Your task to perform on an android device: Open privacy settings Image 0: 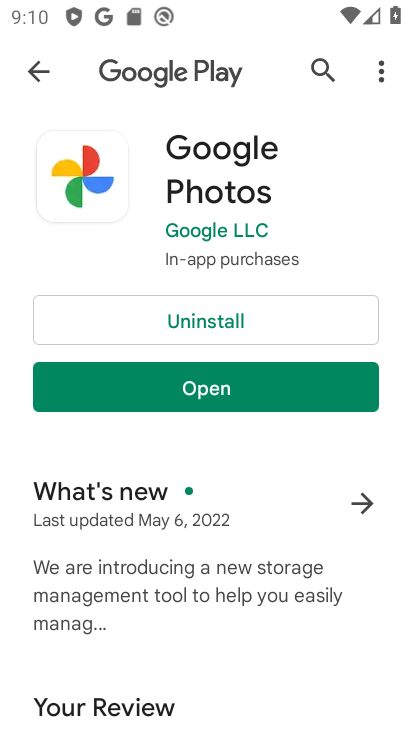
Step 0: press home button
Your task to perform on an android device: Open privacy settings Image 1: 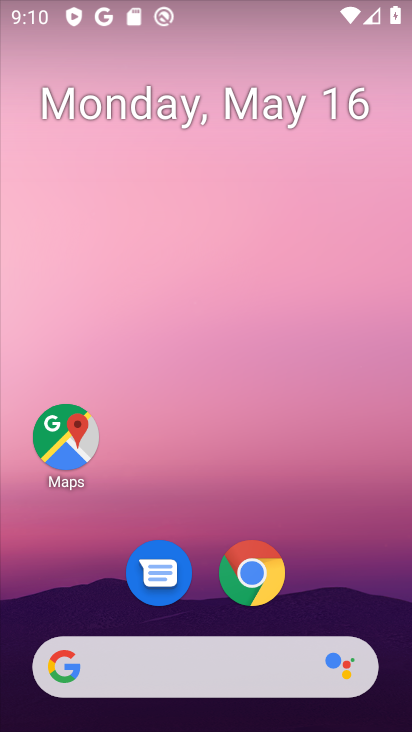
Step 1: drag from (310, 577) to (325, 177)
Your task to perform on an android device: Open privacy settings Image 2: 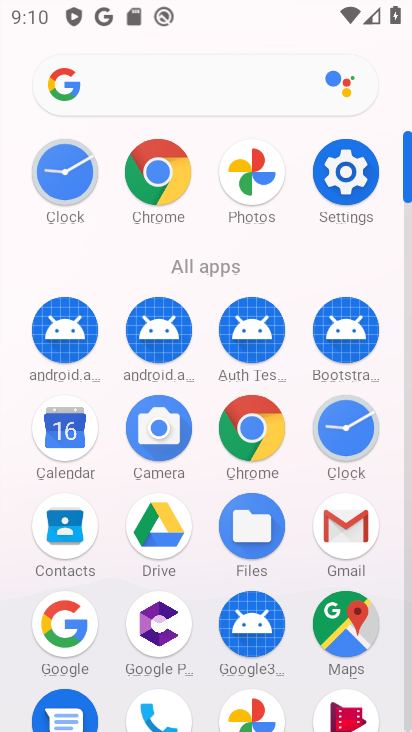
Step 2: click (353, 161)
Your task to perform on an android device: Open privacy settings Image 3: 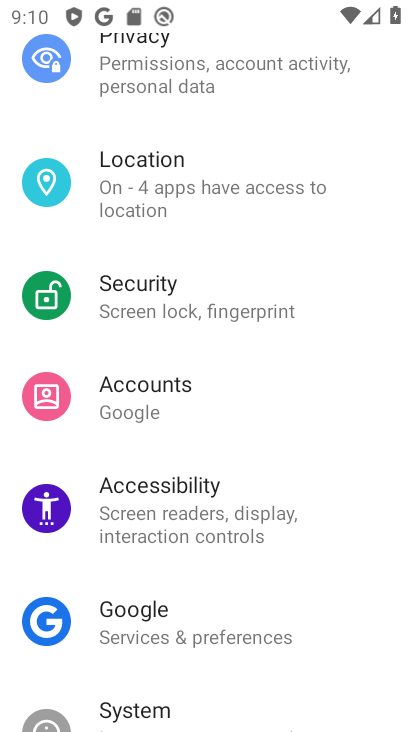
Step 3: drag from (227, 589) to (304, 100)
Your task to perform on an android device: Open privacy settings Image 4: 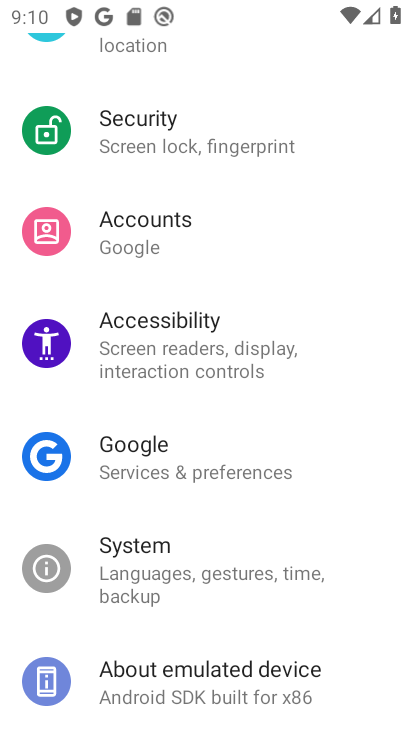
Step 4: drag from (236, 230) to (229, 574)
Your task to perform on an android device: Open privacy settings Image 5: 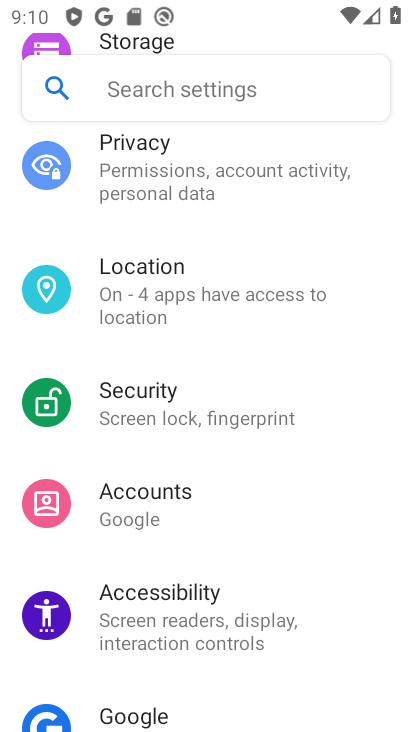
Step 5: click (240, 168)
Your task to perform on an android device: Open privacy settings Image 6: 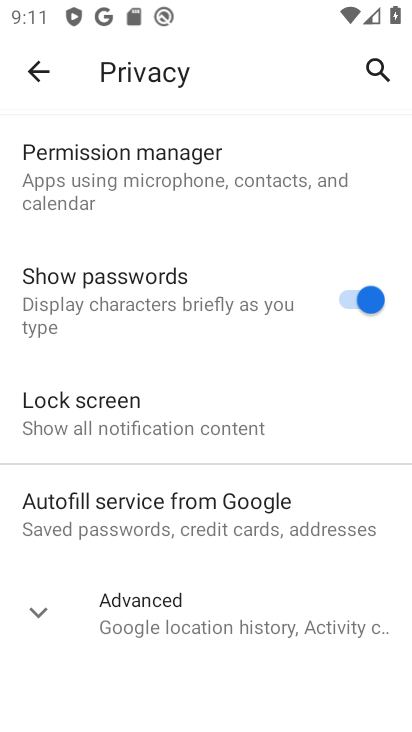
Step 6: task complete